Your task to perform on an android device: star an email in the gmail app Image 0: 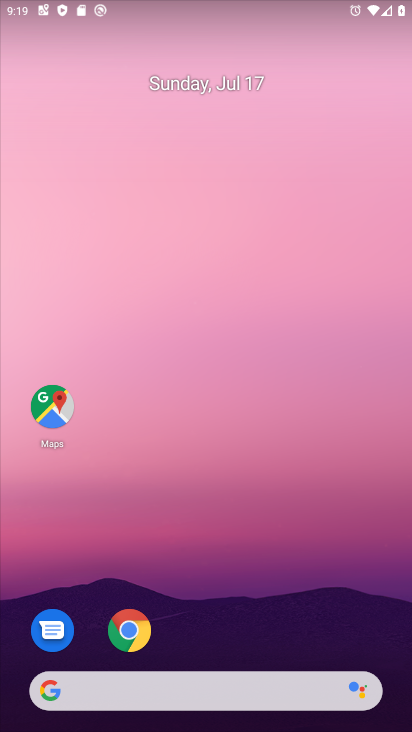
Step 0: drag from (292, 631) to (273, 89)
Your task to perform on an android device: star an email in the gmail app Image 1: 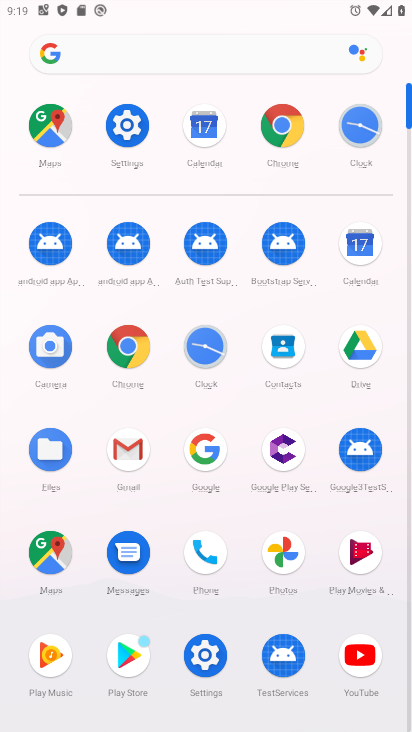
Step 1: click (124, 457)
Your task to perform on an android device: star an email in the gmail app Image 2: 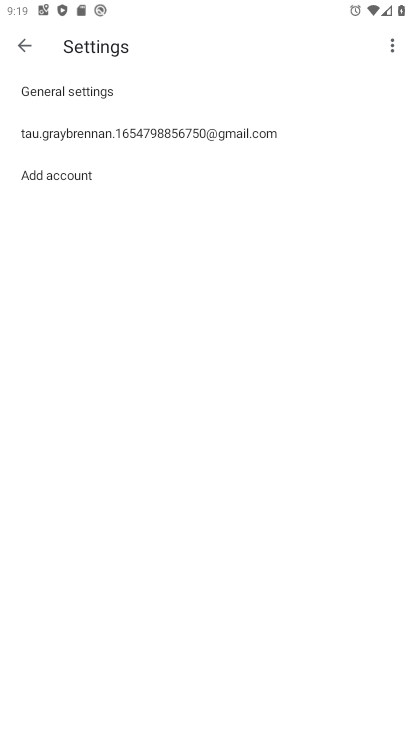
Step 2: press back button
Your task to perform on an android device: star an email in the gmail app Image 3: 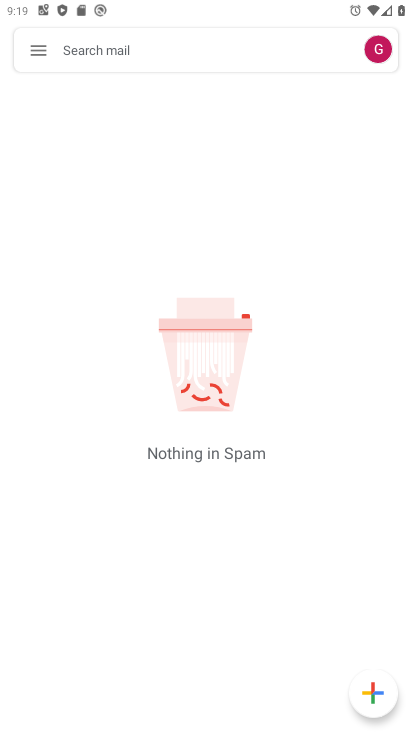
Step 3: click (40, 46)
Your task to perform on an android device: star an email in the gmail app Image 4: 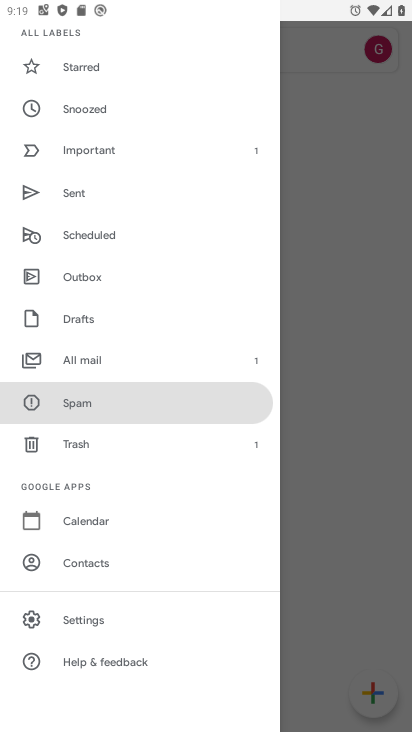
Step 4: click (111, 350)
Your task to perform on an android device: star an email in the gmail app Image 5: 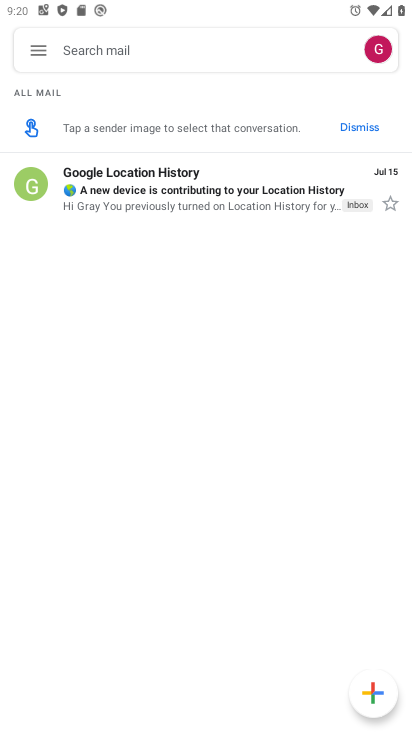
Step 5: click (393, 199)
Your task to perform on an android device: star an email in the gmail app Image 6: 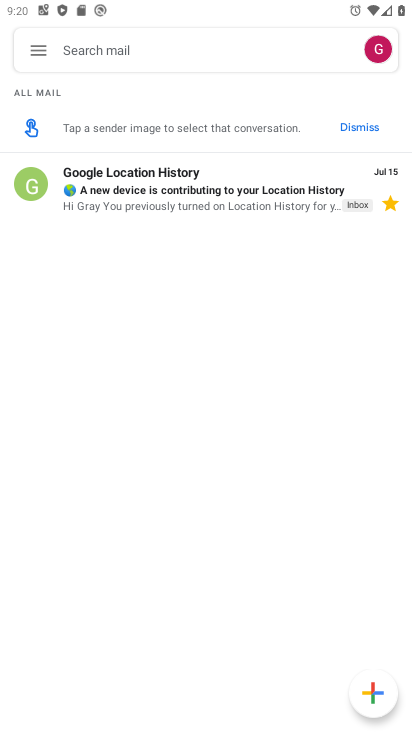
Step 6: task complete